Your task to perform on an android device: set the stopwatch Image 0: 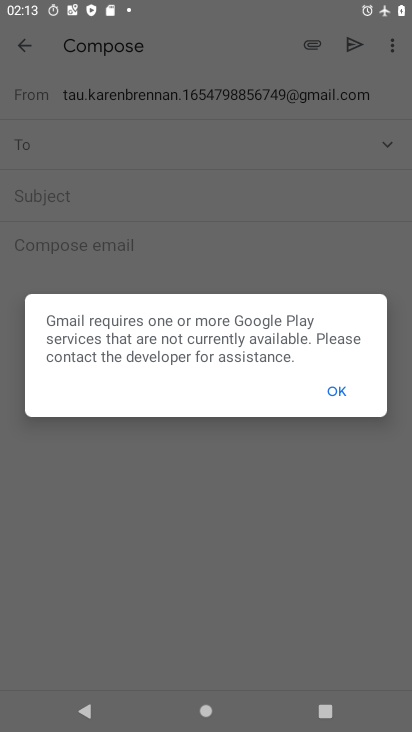
Step 0: press home button
Your task to perform on an android device: set the stopwatch Image 1: 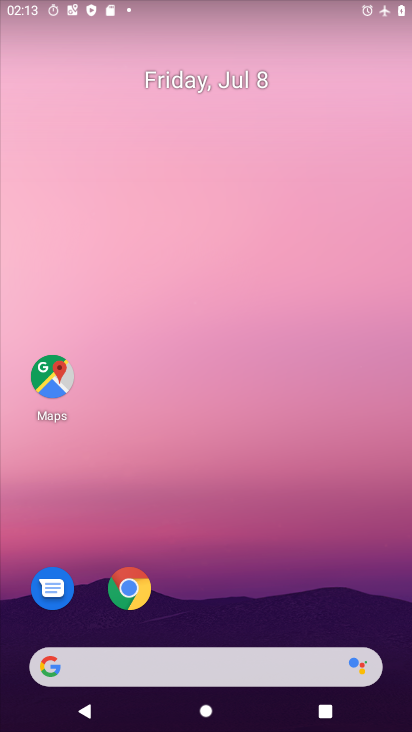
Step 1: drag from (213, 572) to (195, 143)
Your task to perform on an android device: set the stopwatch Image 2: 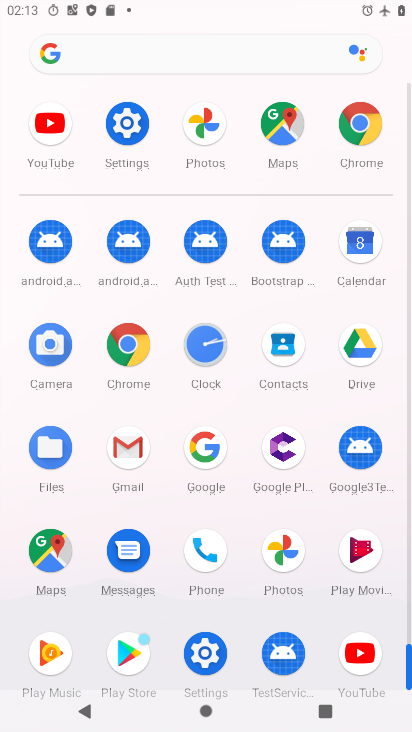
Step 2: click (197, 343)
Your task to perform on an android device: set the stopwatch Image 3: 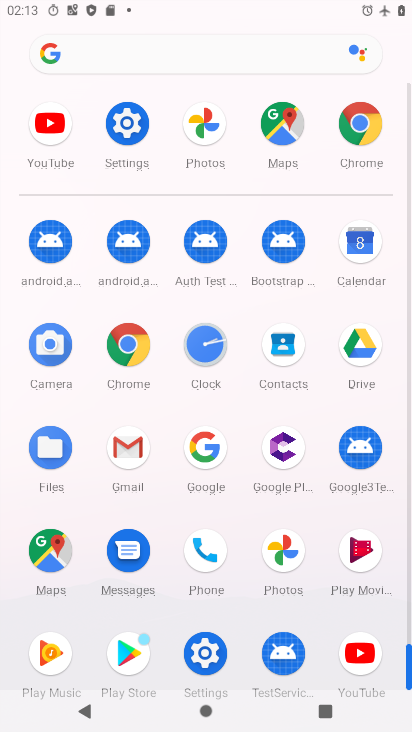
Step 3: click (197, 343)
Your task to perform on an android device: set the stopwatch Image 4: 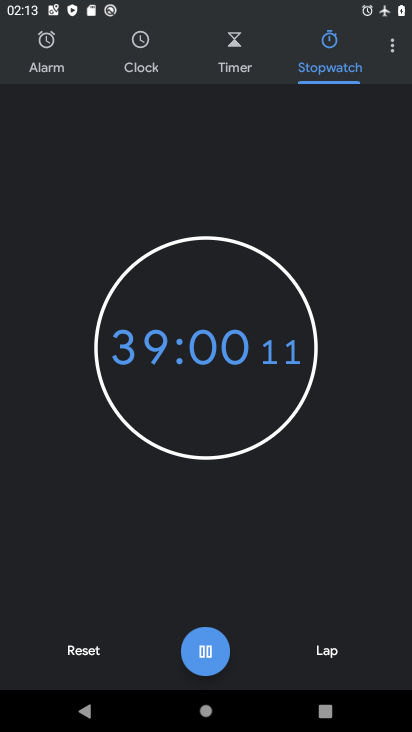
Step 4: click (82, 652)
Your task to perform on an android device: set the stopwatch Image 5: 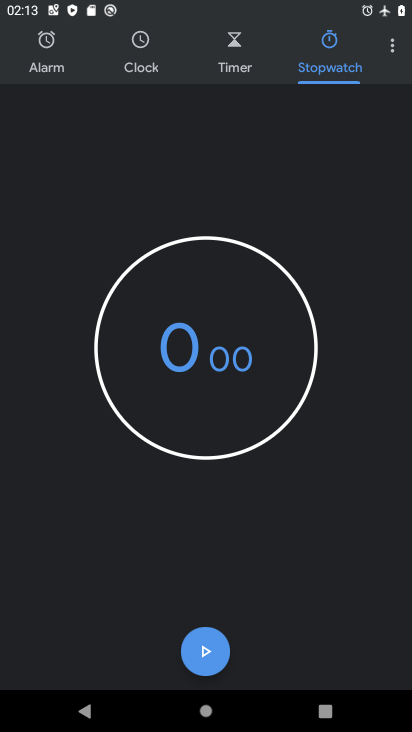
Step 5: click (211, 634)
Your task to perform on an android device: set the stopwatch Image 6: 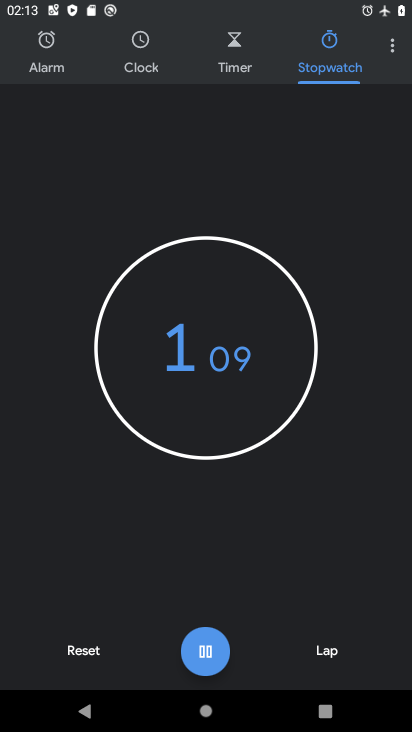
Step 6: task complete